Your task to perform on an android device: toggle improve location accuracy Image 0: 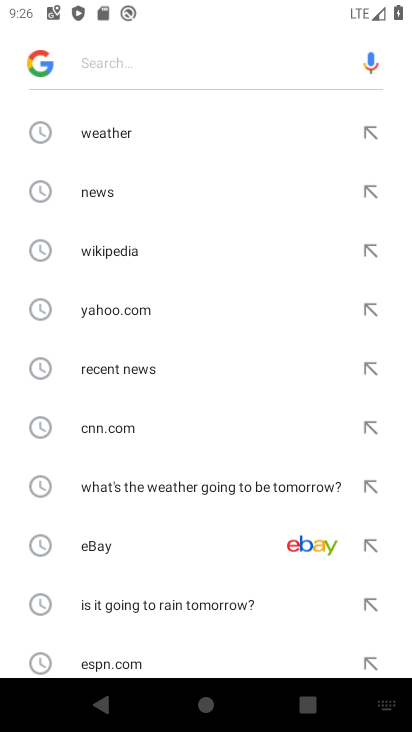
Step 0: press home button
Your task to perform on an android device: toggle improve location accuracy Image 1: 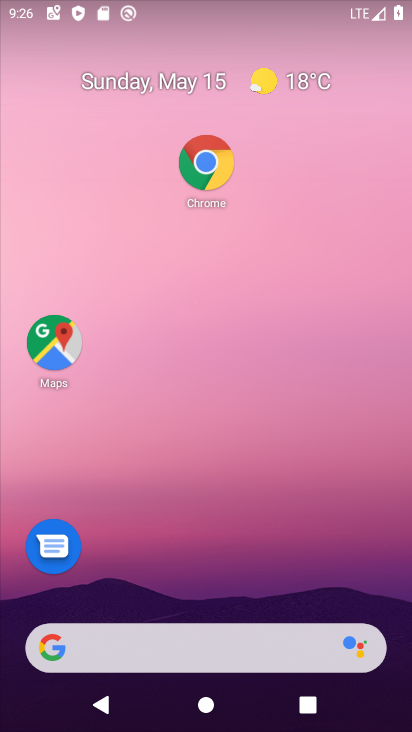
Step 1: drag from (246, 434) to (246, 182)
Your task to perform on an android device: toggle improve location accuracy Image 2: 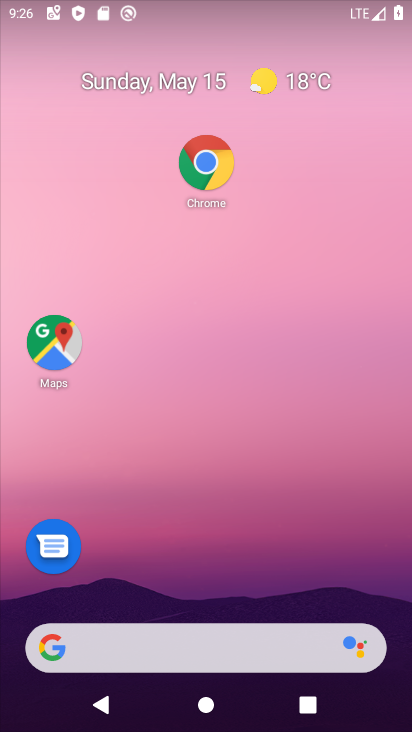
Step 2: drag from (245, 572) to (234, 212)
Your task to perform on an android device: toggle improve location accuracy Image 3: 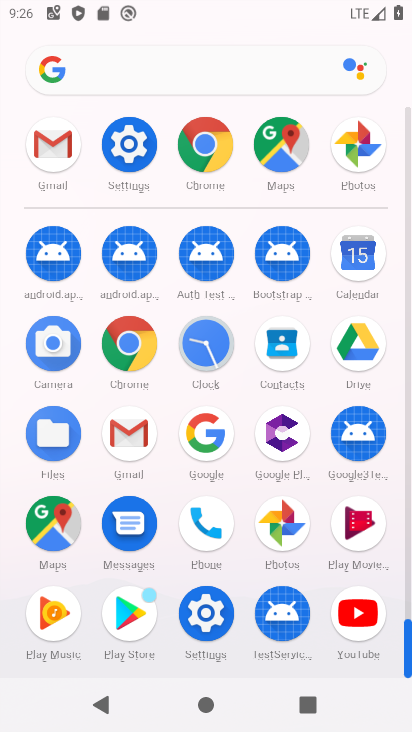
Step 3: click (114, 137)
Your task to perform on an android device: toggle improve location accuracy Image 4: 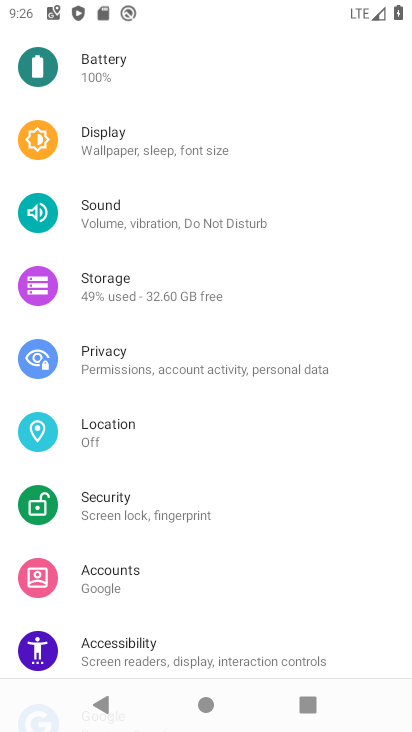
Step 4: drag from (184, 567) to (204, 423)
Your task to perform on an android device: toggle improve location accuracy Image 5: 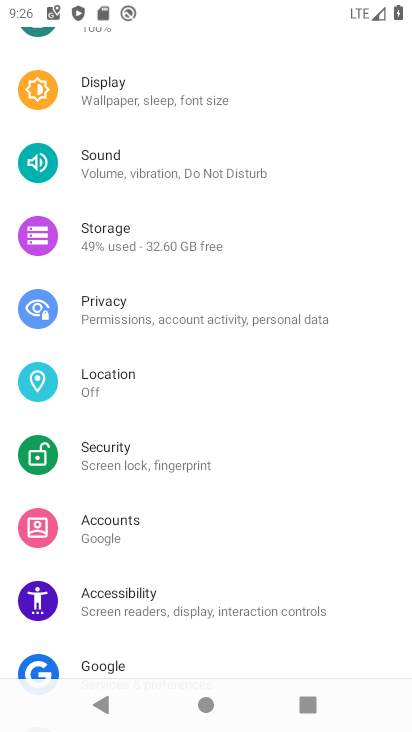
Step 5: click (150, 381)
Your task to perform on an android device: toggle improve location accuracy Image 6: 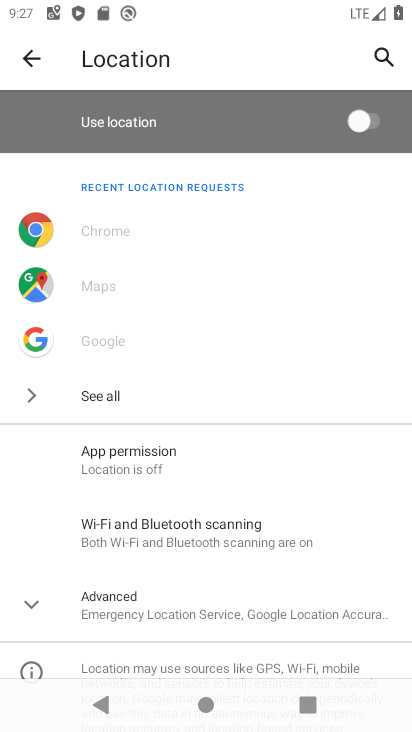
Step 6: drag from (227, 544) to (271, 331)
Your task to perform on an android device: toggle improve location accuracy Image 7: 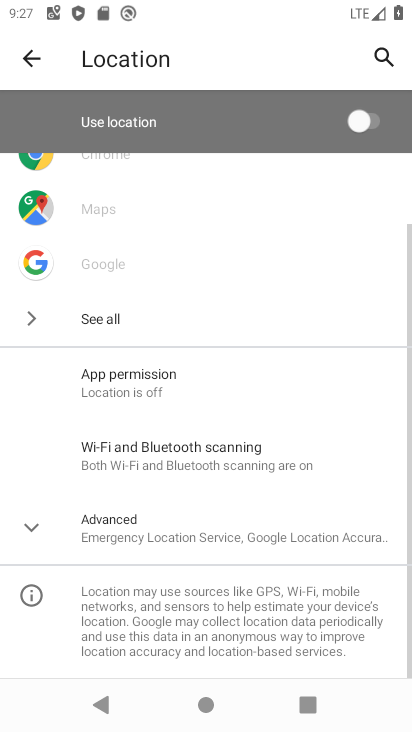
Step 7: click (209, 524)
Your task to perform on an android device: toggle improve location accuracy Image 8: 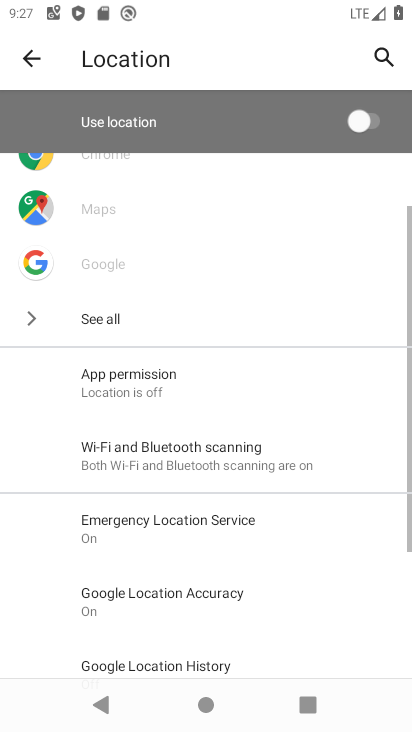
Step 8: drag from (241, 630) to (270, 254)
Your task to perform on an android device: toggle improve location accuracy Image 9: 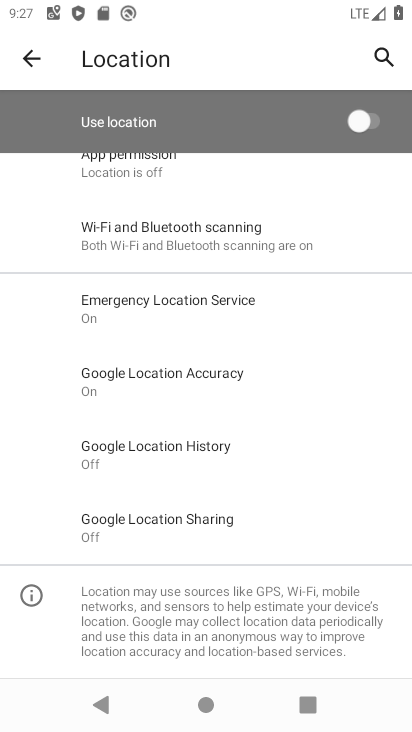
Step 9: click (164, 451)
Your task to perform on an android device: toggle improve location accuracy Image 10: 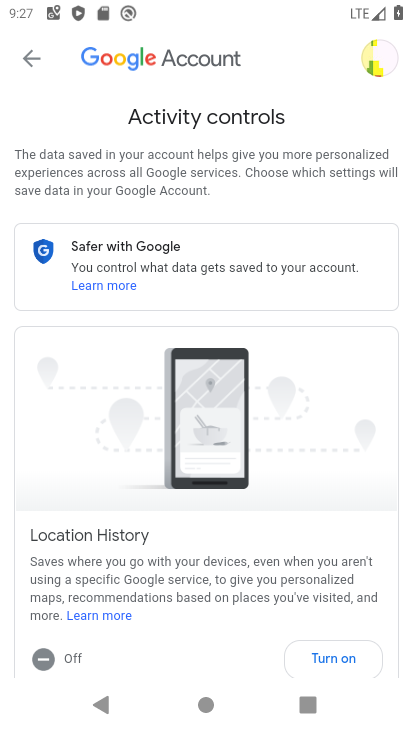
Step 10: drag from (280, 625) to (311, 493)
Your task to perform on an android device: toggle improve location accuracy Image 11: 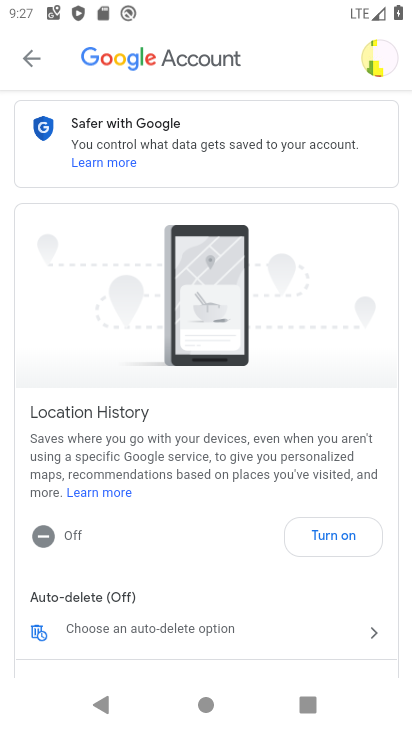
Step 11: click (322, 523)
Your task to perform on an android device: toggle improve location accuracy Image 12: 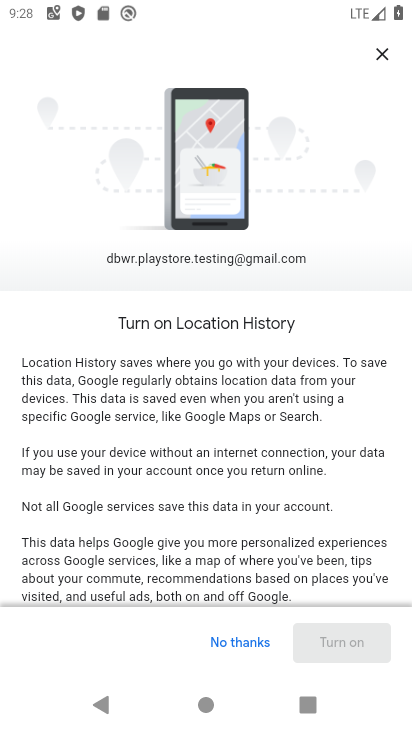
Step 12: task complete